Your task to perform on an android device: Set the phone to "Do not disturb". Image 0: 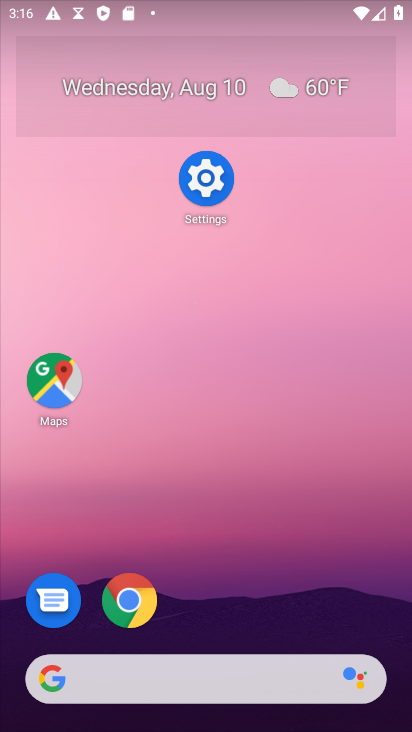
Step 0: press home button
Your task to perform on an android device: Set the phone to "Do not disturb". Image 1: 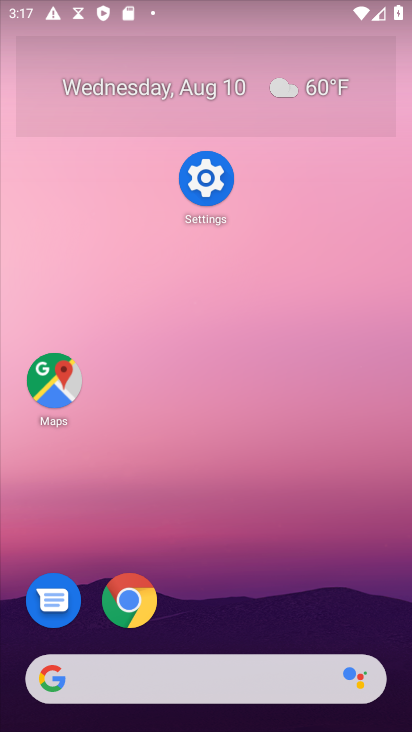
Step 1: drag from (204, 11) to (251, 523)
Your task to perform on an android device: Set the phone to "Do not disturb". Image 2: 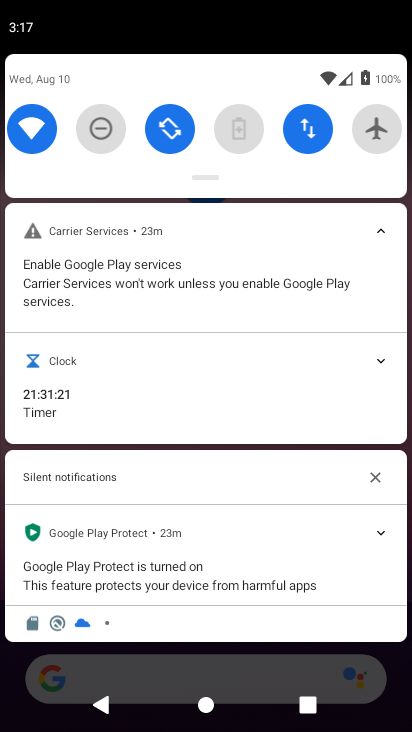
Step 2: click (98, 125)
Your task to perform on an android device: Set the phone to "Do not disturb". Image 3: 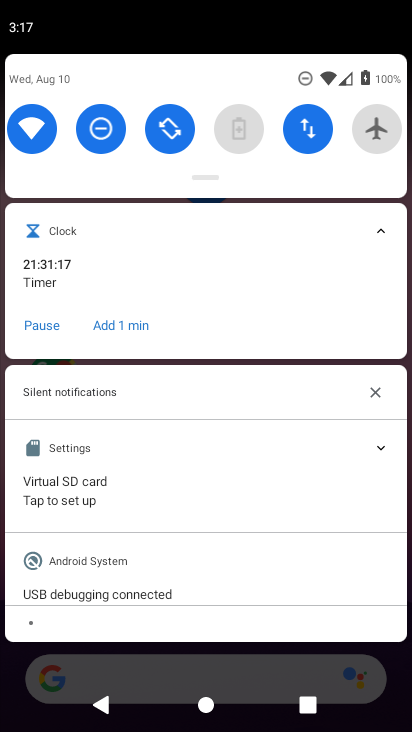
Step 3: task complete